Your task to perform on an android device: search for starred emails in the gmail app Image 0: 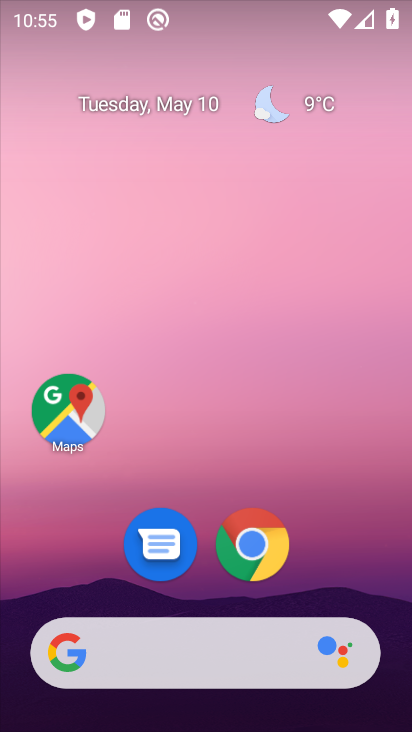
Step 0: drag from (152, 601) to (224, 132)
Your task to perform on an android device: search for starred emails in the gmail app Image 1: 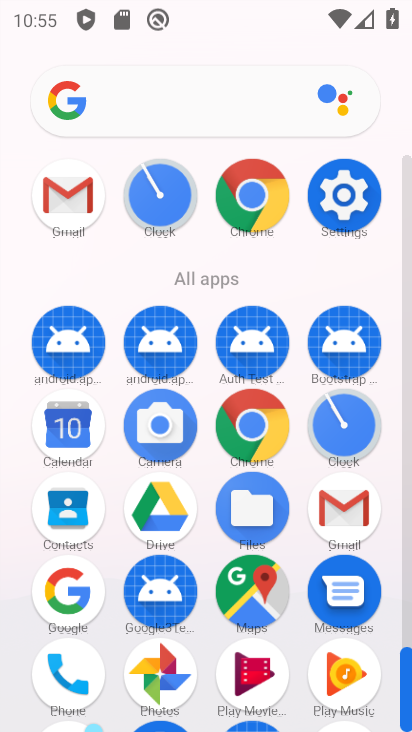
Step 1: click (367, 525)
Your task to perform on an android device: search for starred emails in the gmail app Image 2: 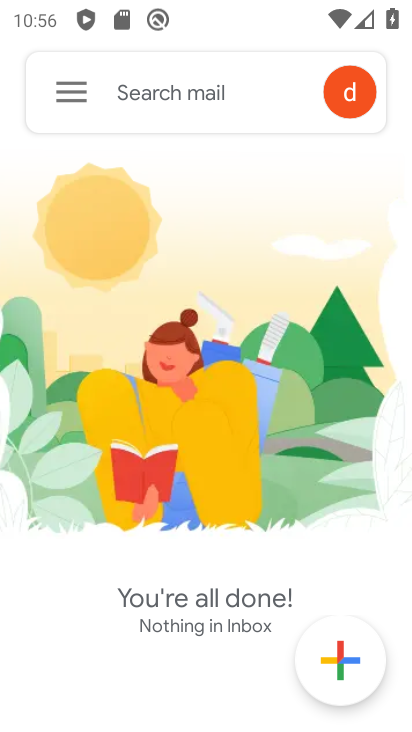
Step 2: click (83, 93)
Your task to perform on an android device: search for starred emails in the gmail app Image 3: 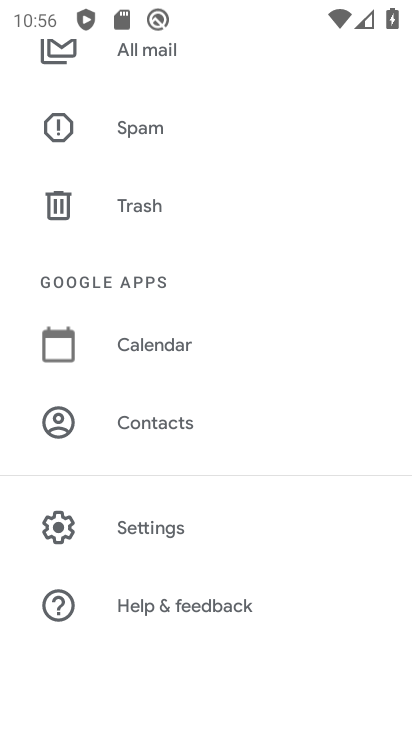
Step 3: drag from (234, 184) to (225, 617)
Your task to perform on an android device: search for starred emails in the gmail app Image 4: 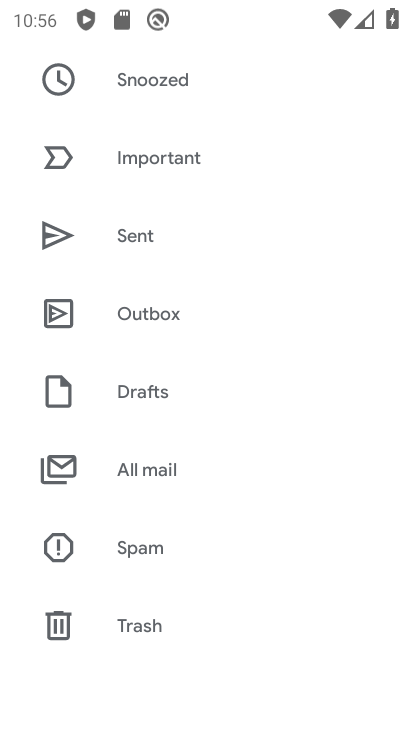
Step 4: drag from (205, 104) to (217, 527)
Your task to perform on an android device: search for starred emails in the gmail app Image 5: 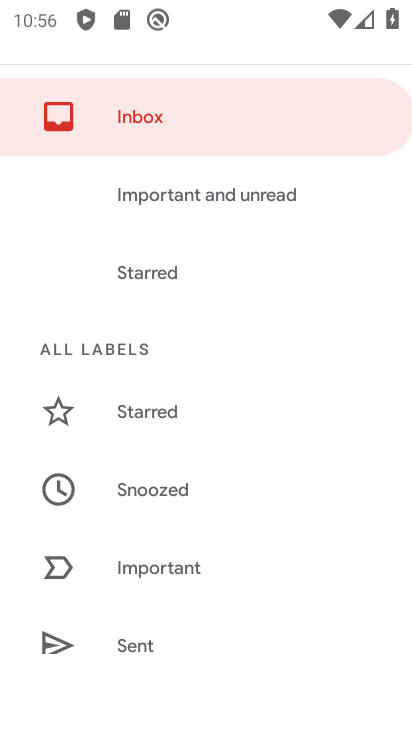
Step 5: drag from (181, 578) to (210, 488)
Your task to perform on an android device: search for starred emails in the gmail app Image 6: 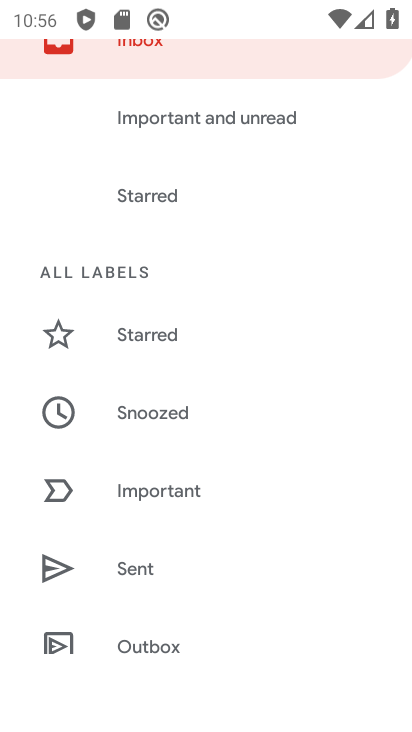
Step 6: click (193, 211)
Your task to perform on an android device: search for starred emails in the gmail app Image 7: 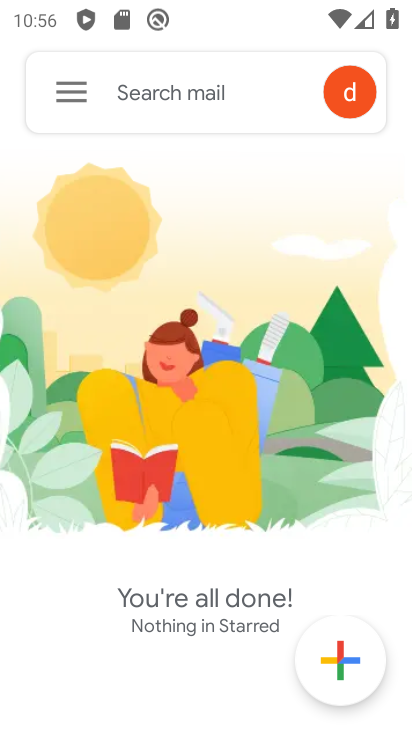
Step 7: click (75, 95)
Your task to perform on an android device: search for starred emails in the gmail app Image 8: 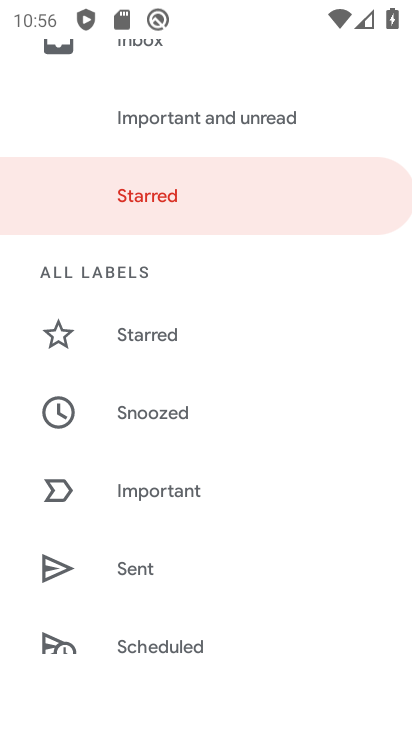
Step 8: click (179, 329)
Your task to perform on an android device: search for starred emails in the gmail app Image 9: 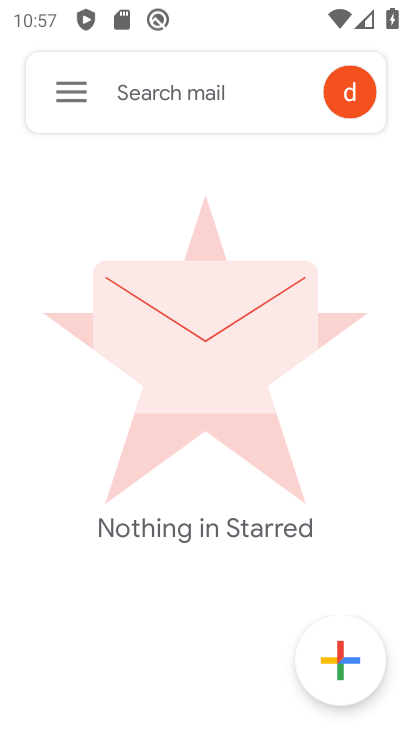
Step 9: task complete